Your task to perform on an android device: Is it going to rain today? Image 0: 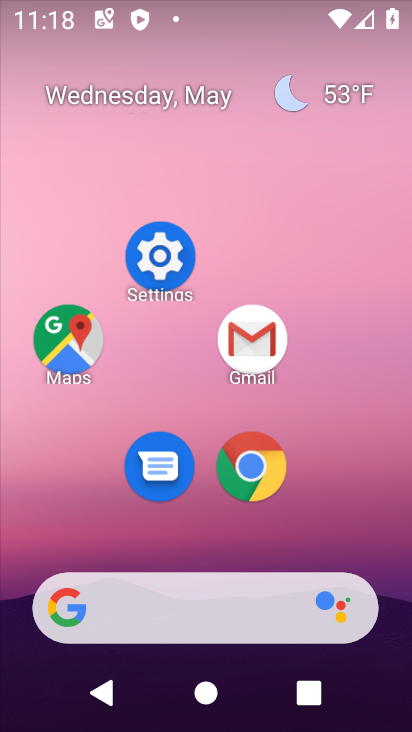
Step 0: click (335, 187)
Your task to perform on an android device: Is it going to rain today? Image 1: 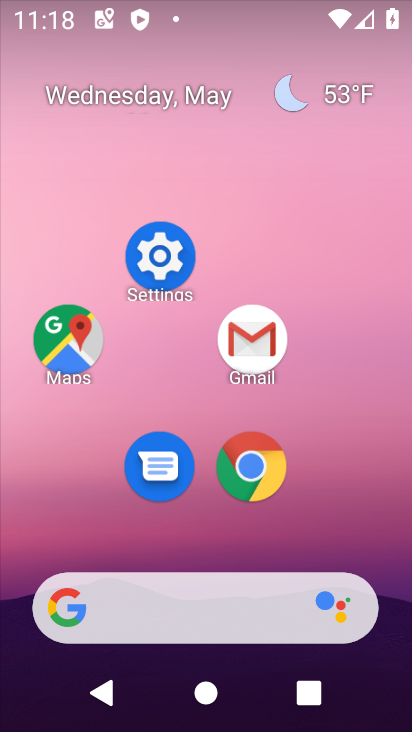
Step 1: drag from (214, 524) to (271, 159)
Your task to perform on an android device: Is it going to rain today? Image 2: 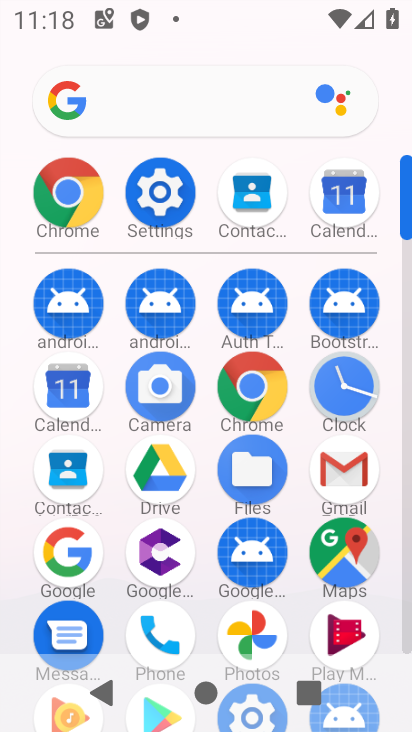
Step 2: click (157, 113)
Your task to perform on an android device: Is it going to rain today? Image 3: 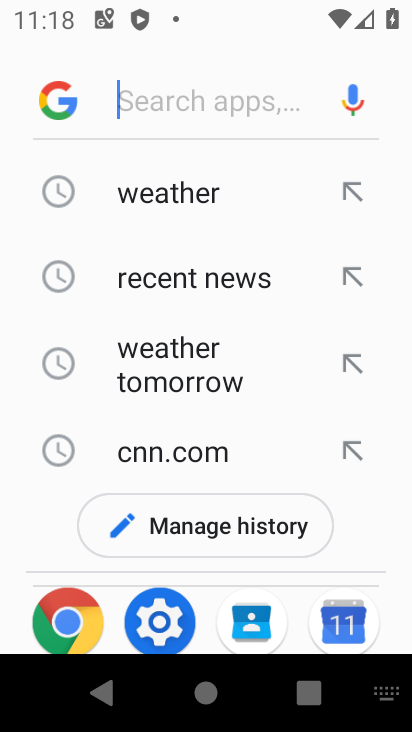
Step 3: type "rain today"
Your task to perform on an android device: Is it going to rain today? Image 4: 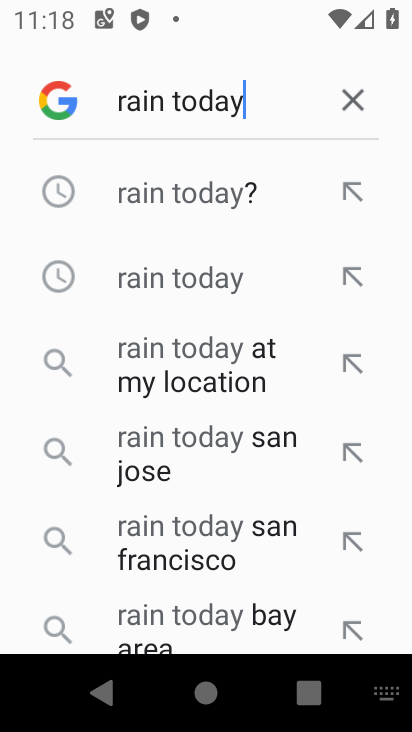
Step 4: click (215, 199)
Your task to perform on an android device: Is it going to rain today? Image 5: 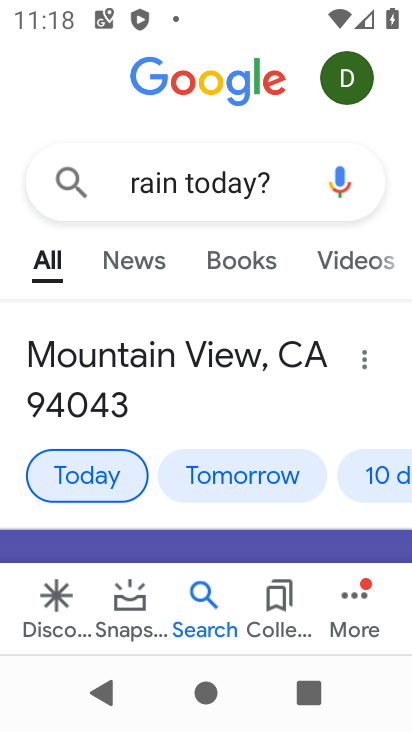
Step 5: drag from (200, 515) to (230, 169)
Your task to perform on an android device: Is it going to rain today? Image 6: 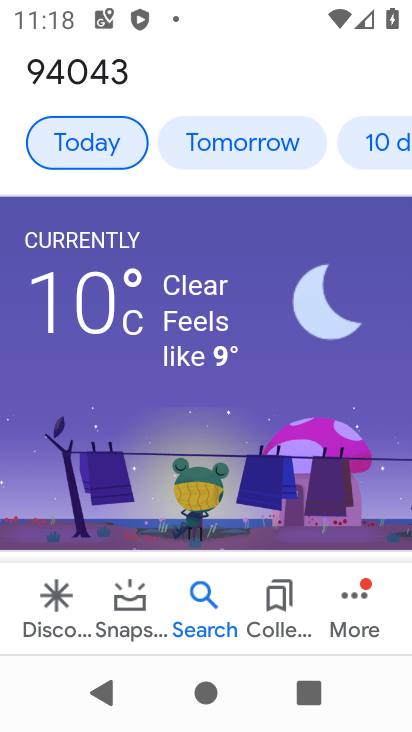
Step 6: click (295, 265)
Your task to perform on an android device: Is it going to rain today? Image 7: 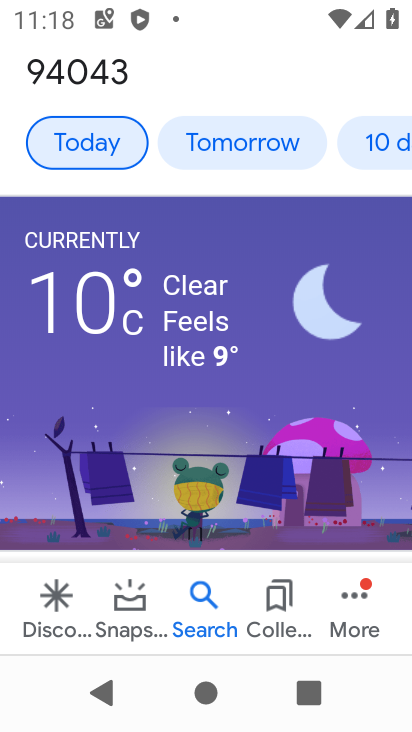
Step 7: task complete